Your task to perform on an android device: Open maps Image 0: 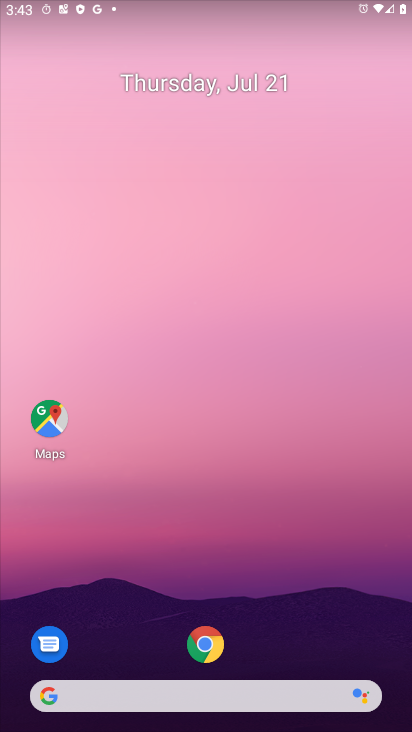
Step 0: press home button
Your task to perform on an android device: Open maps Image 1: 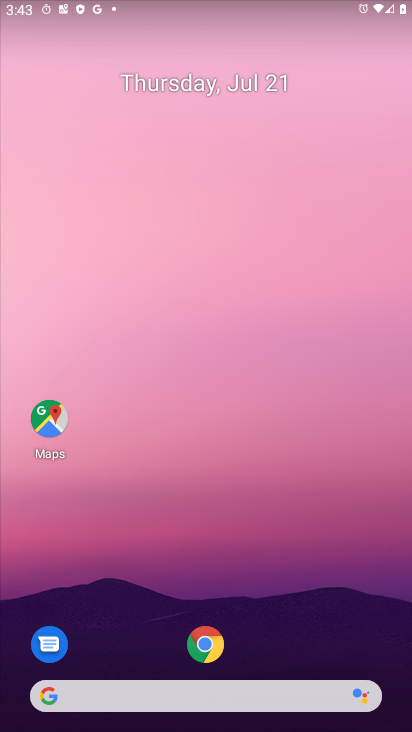
Step 1: drag from (294, 580) to (350, 122)
Your task to perform on an android device: Open maps Image 2: 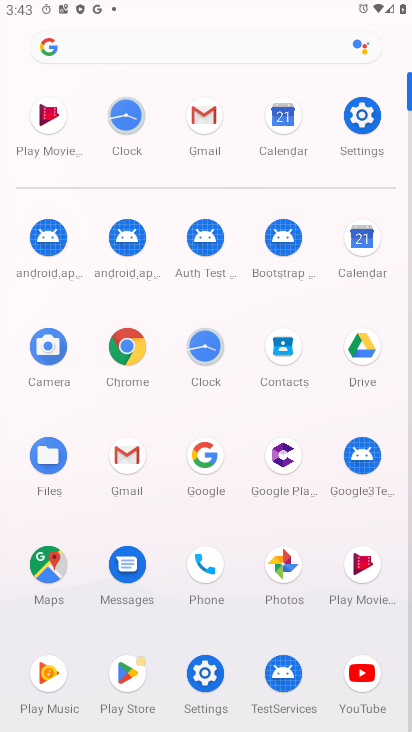
Step 2: drag from (303, 409) to (2, 492)
Your task to perform on an android device: Open maps Image 3: 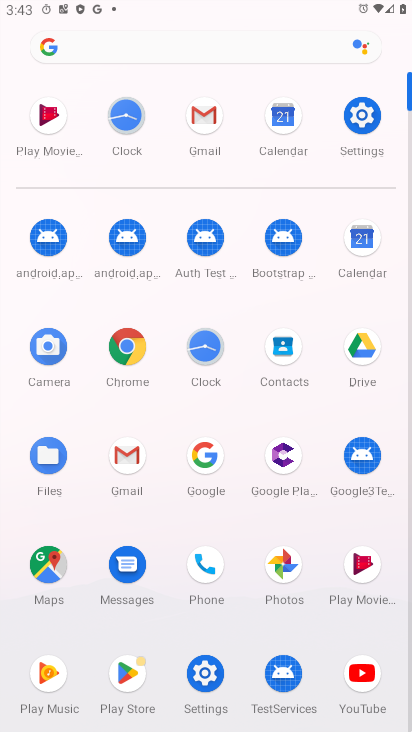
Step 3: click (45, 571)
Your task to perform on an android device: Open maps Image 4: 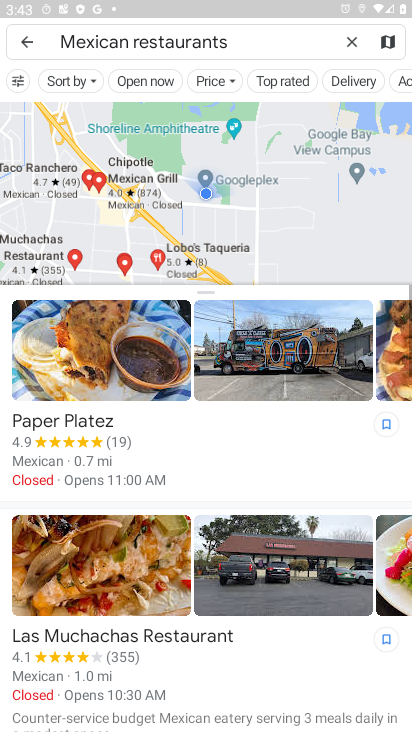
Step 4: click (26, 37)
Your task to perform on an android device: Open maps Image 5: 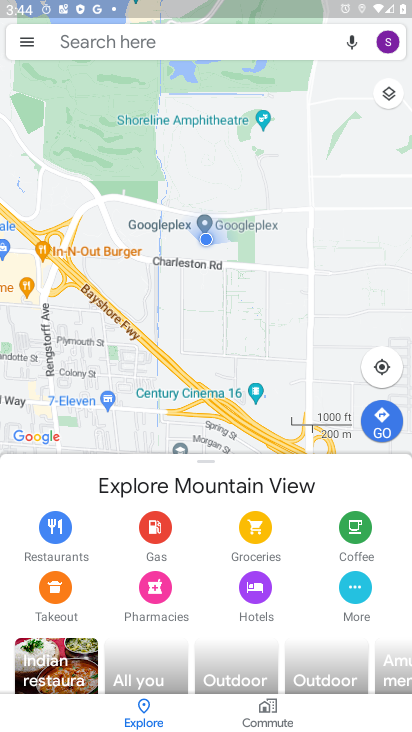
Step 5: task complete